Your task to perform on an android device: Go to battery settings Image 0: 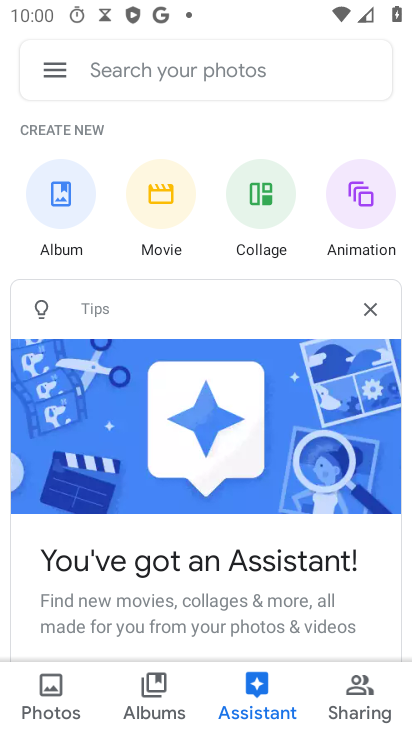
Step 0: press home button
Your task to perform on an android device: Go to battery settings Image 1: 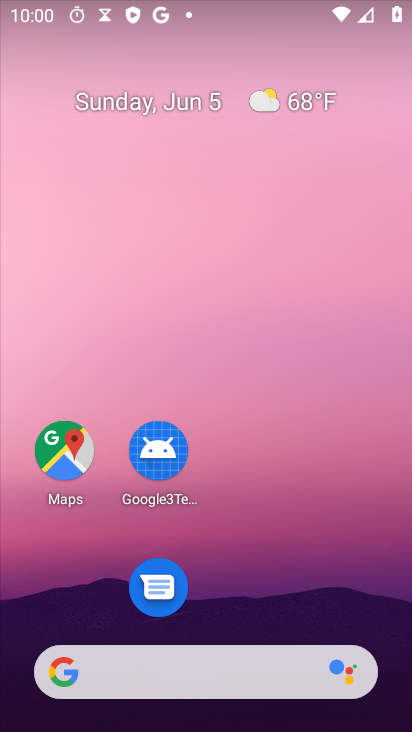
Step 1: drag from (267, 559) to (224, 15)
Your task to perform on an android device: Go to battery settings Image 2: 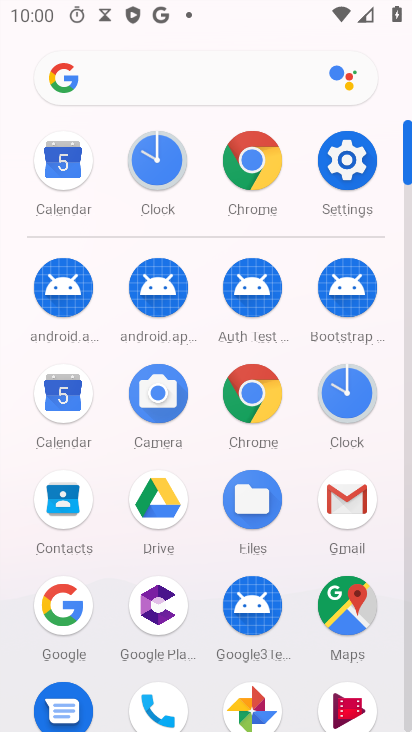
Step 2: click (346, 178)
Your task to perform on an android device: Go to battery settings Image 3: 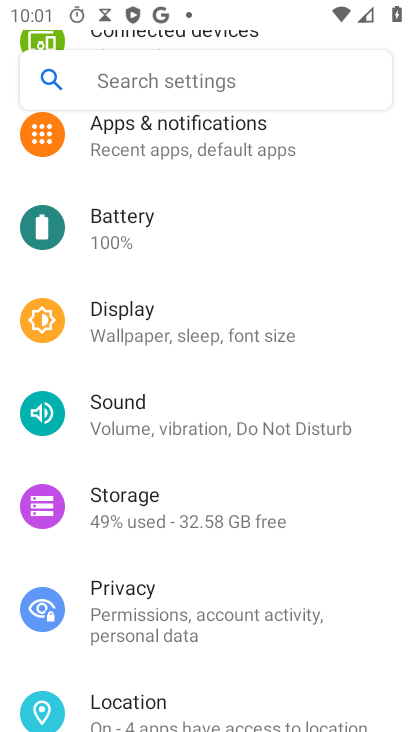
Step 3: click (101, 211)
Your task to perform on an android device: Go to battery settings Image 4: 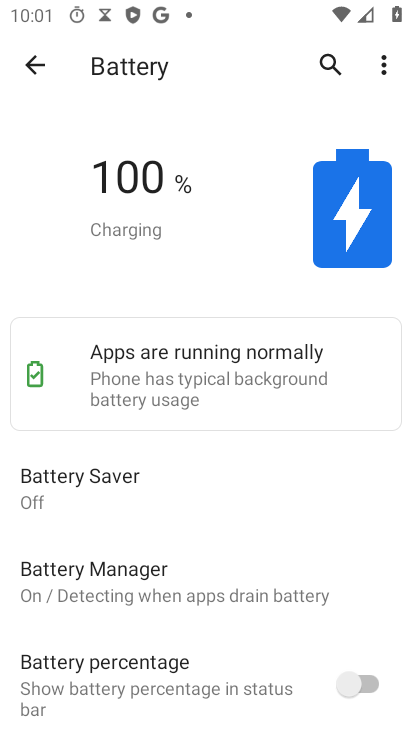
Step 4: drag from (121, 670) to (149, 249)
Your task to perform on an android device: Go to battery settings Image 5: 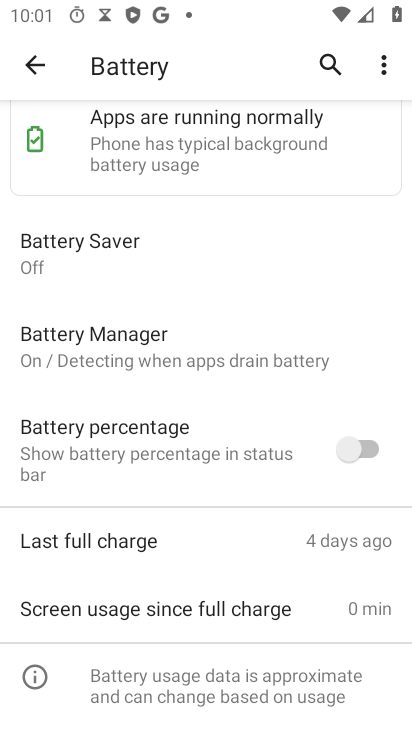
Step 5: click (97, 709)
Your task to perform on an android device: Go to battery settings Image 6: 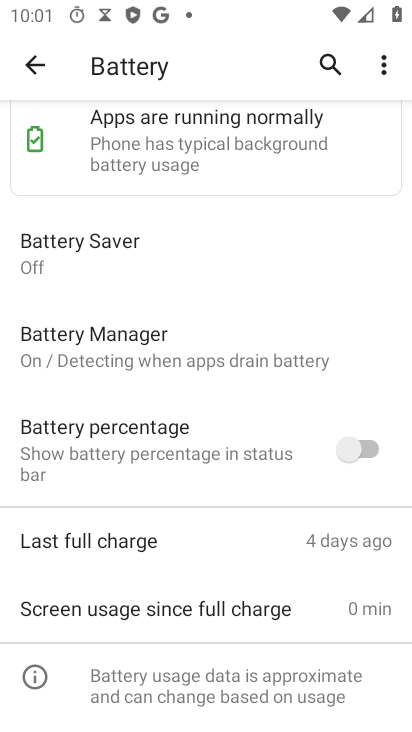
Step 6: click (97, 709)
Your task to perform on an android device: Go to battery settings Image 7: 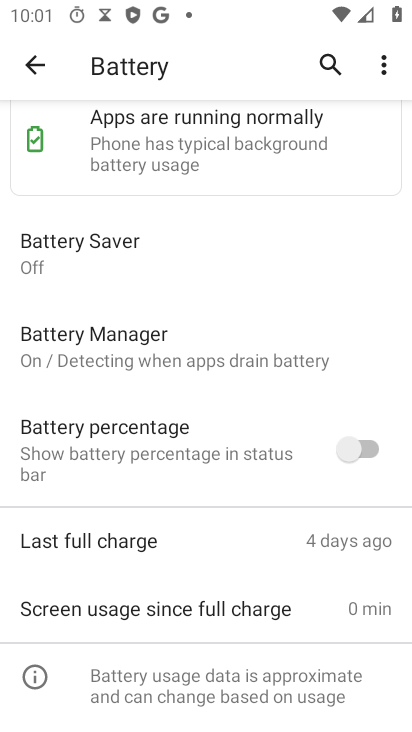
Step 7: click (97, 709)
Your task to perform on an android device: Go to battery settings Image 8: 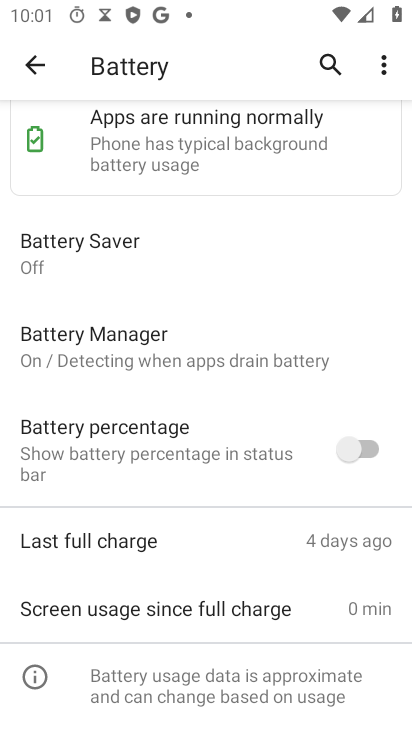
Step 8: click (97, 709)
Your task to perform on an android device: Go to battery settings Image 9: 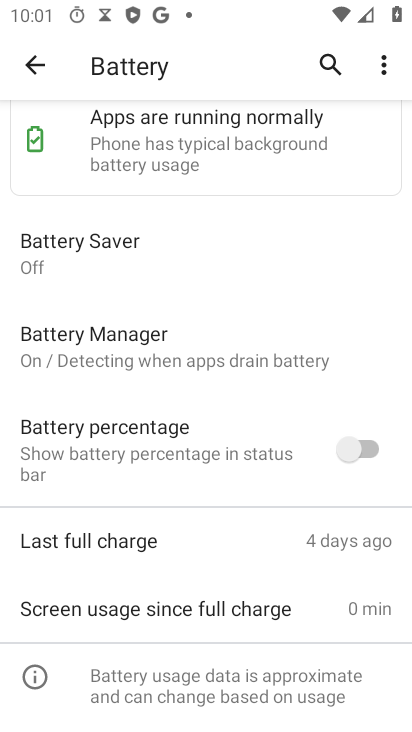
Step 9: task complete